Your task to perform on an android device: Go to Reddit.com Image 0: 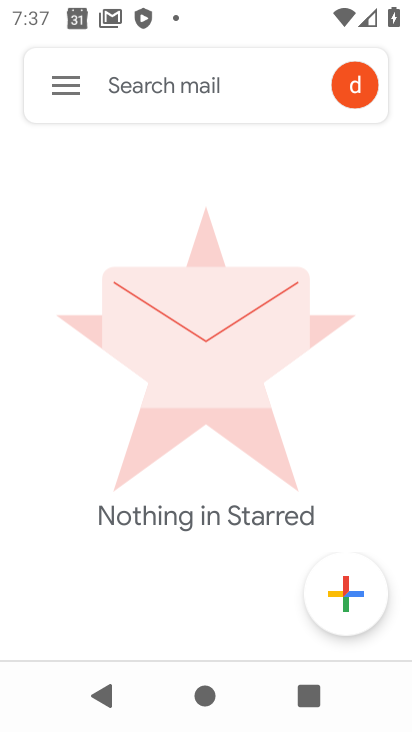
Step 0: press home button
Your task to perform on an android device: Go to Reddit.com Image 1: 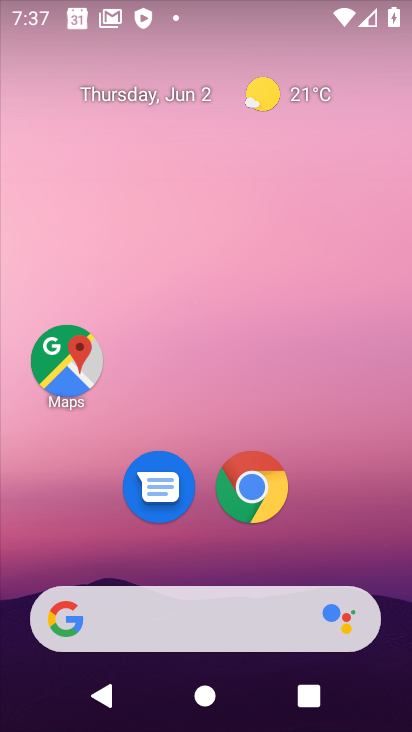
Step 1: drag from (177, 549) to (347, 14)
Your task to perform on an android device: Go to Reddit.com Image 2: 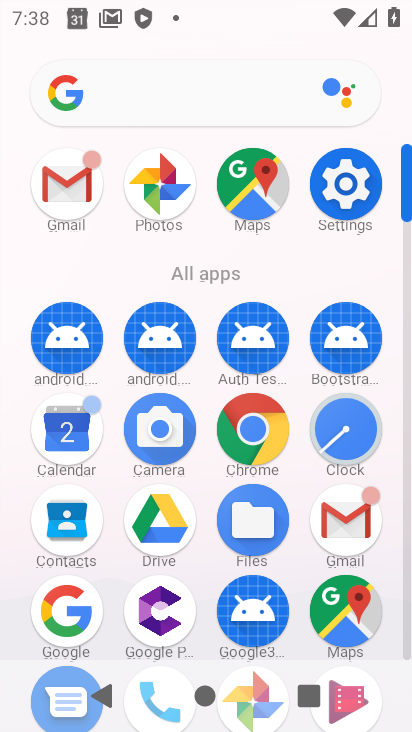
Step 2: click (244, 427)
Your task to perform on an android device: Go to Reddit.com Image 3: 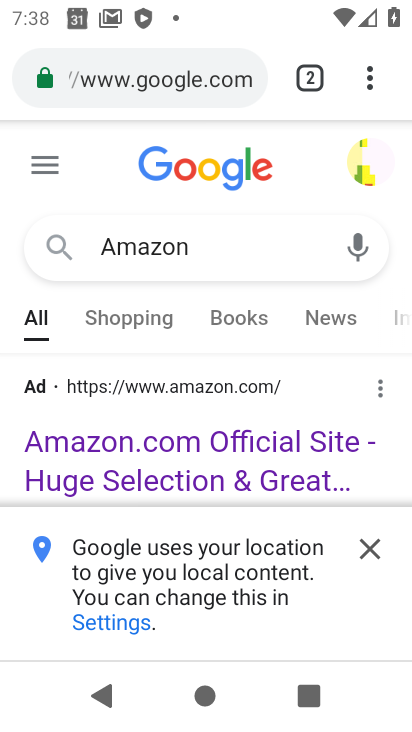
Step 3: click (174, 77)
Your task to perform on an android device: Go to Reddit.com Image 4: 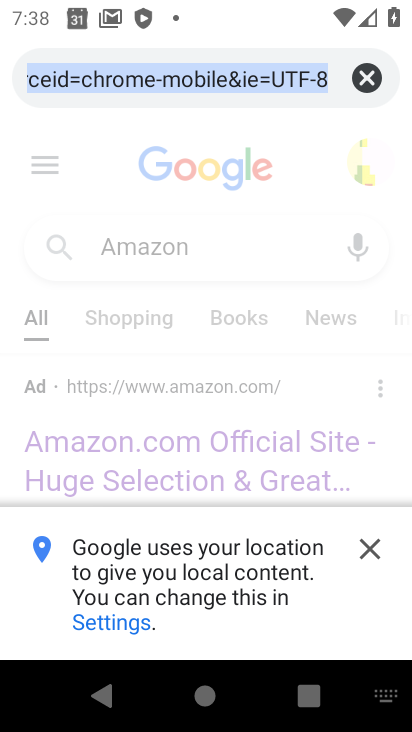
Step 4: type "Reddit.com"
Your task to perform on an android device: Go to Reddit.com Image 5: 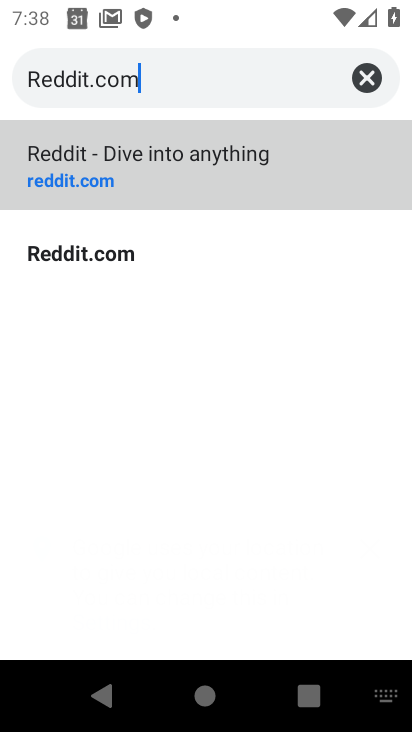
Step 5: click (87, 244)
Your task to perform on an android device: Go to Reddit.com Image 6: 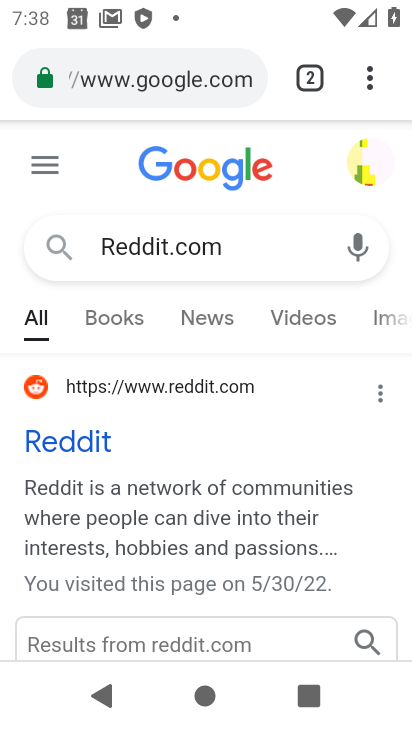
Step 6: task complete